Your task to perform on an android device: open device folders in google photos Image 0: 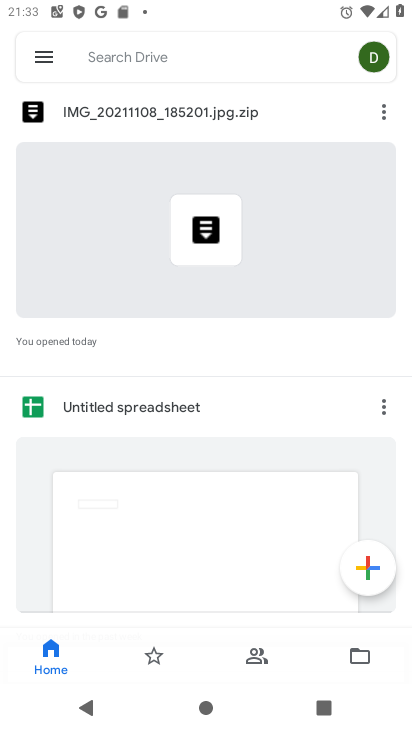
Step 0: press home button
Your task to perform on an android device: open device folders in google photos Image 1: 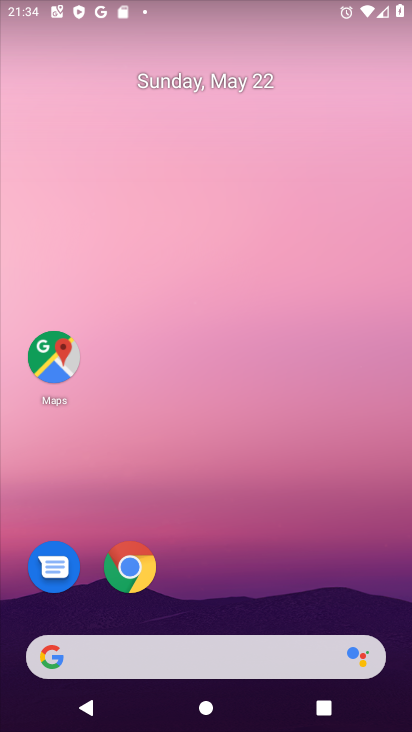
Step 1: drag from (199, 572) to (289, 6)
Your task to perform on an android device: open device folders in google photos Image 2: 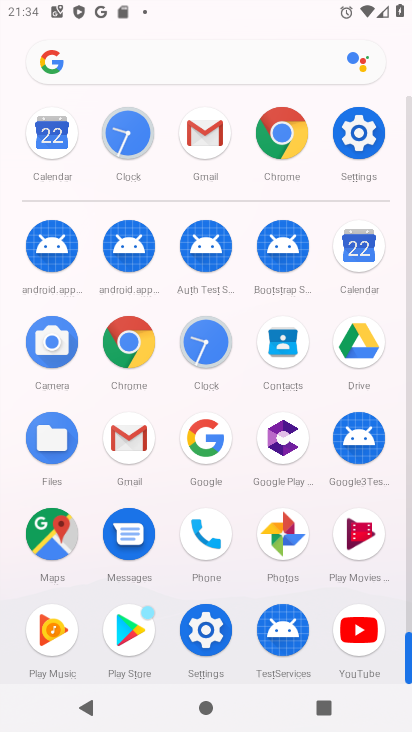
Step 2: click (292, 543)
Your task to perform on an android device: open device folders in google photos Image 3: 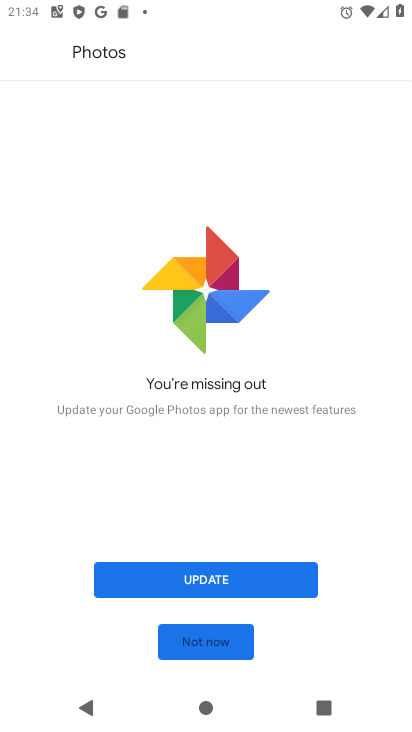
Step 3: click (224, 636)
Your task to perform on an android device: open device folders in google photos Image 4: 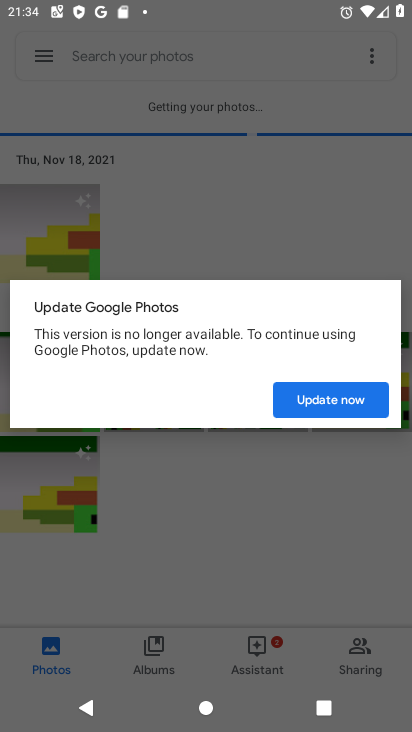
Step 4: click (321, 402)
Your task to perform on an android device: open device folders in google photos Image 5: 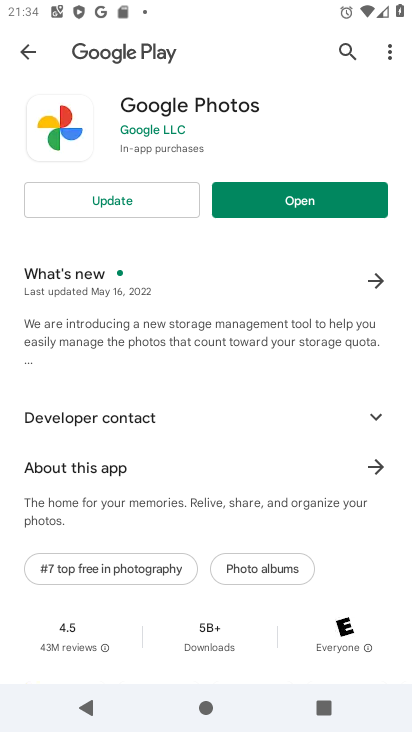
Step 5: press back button
Your task to perform on an android device: open device folders in google photos Image 6: 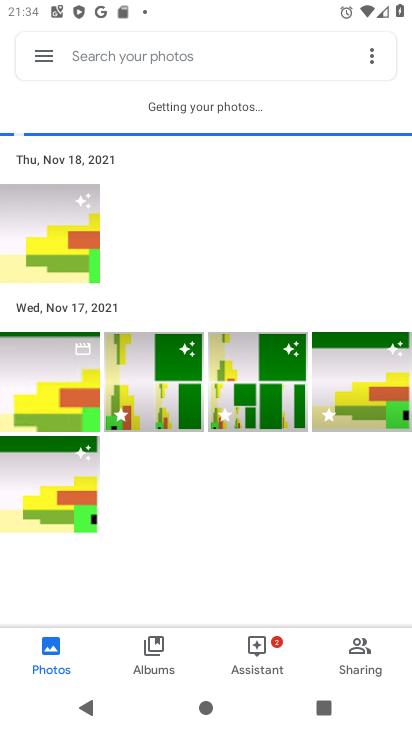
Step 6: click (40, 53)
Your task to perform on an android device: open device folders in google photos Image 7: 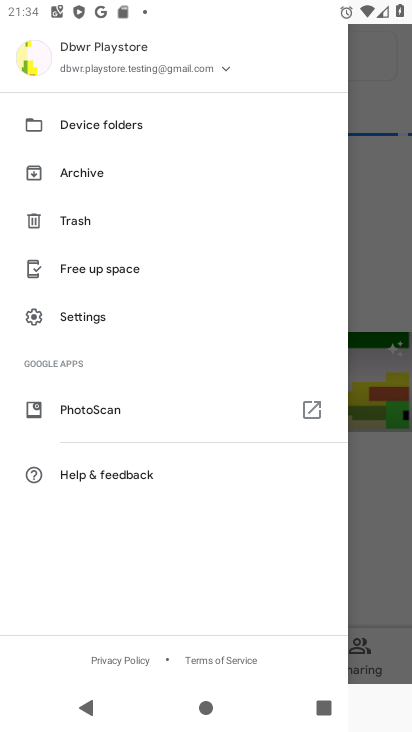
Step 7: click (137, 131)
Your task to perform on an android device: open device folders in google photos Image 8: 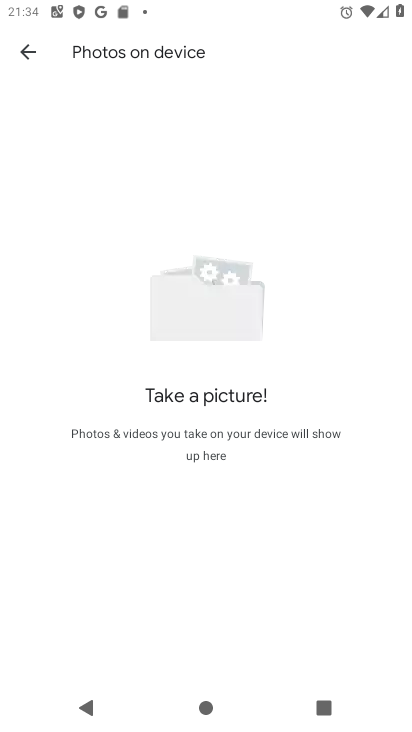
Step 8: task complete